Your task to perform on an android device: set default search engine in the chrome app Image 0: 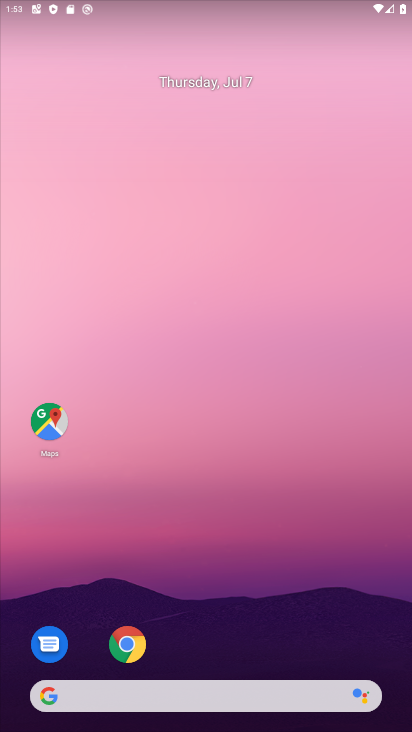
Step 0: drag from (187, 677) to (222, 150)
Your task to perform on an android device: set default search engine in the chrome app Image 1: 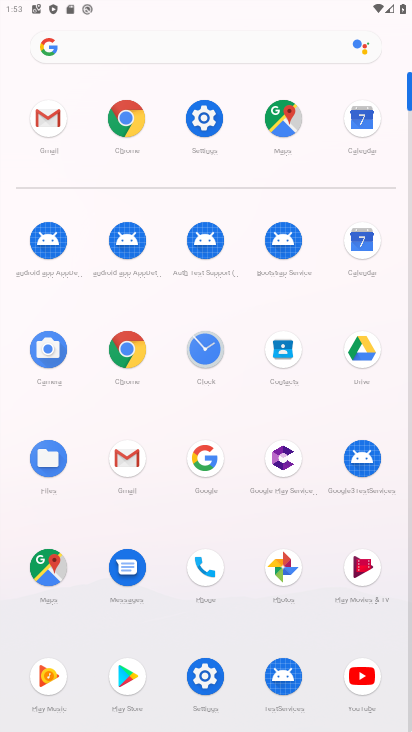
Step 1: click (131, 131)
Your task to perform on an android device: set default search engine in the chrome app Image 2: 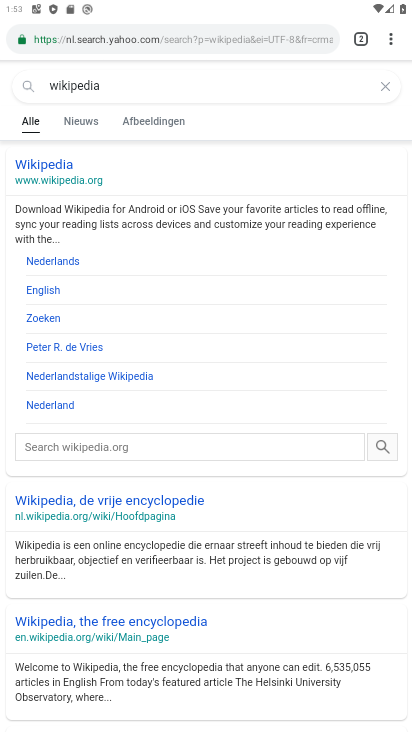
Step 2: drag from (393, 43) to (275, 476)
Your task to perform on an android device: set default search engine in the chrome app Image 3: 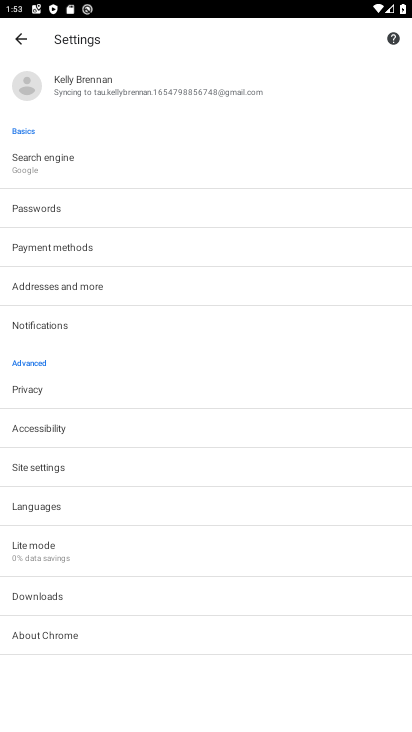
Step 3: click (110, 161)
Your task to perform on an android device: set default search engine in the chrome app Image 4: 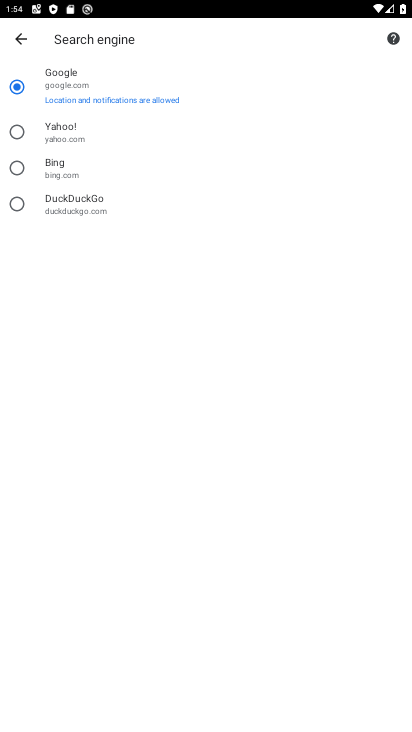
Step 4: click (62, 198)
Your task to perform on an android device: set default search engine in the chrome app Image 5: 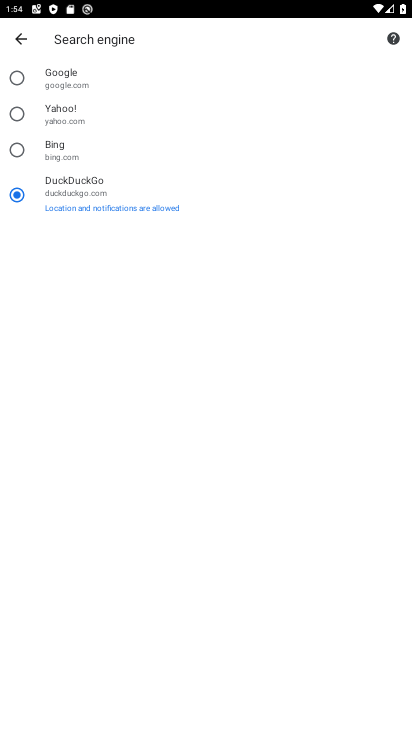
Step 5: task complete